Your task to perform on an android device: change notification settings in the gmail app Image 0: 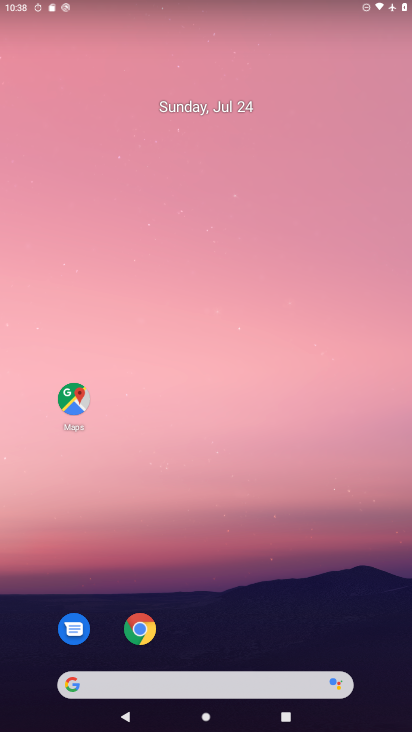
Step 0: drag from (192, 522) to (192, 44)
Your task to perform on an android device: change notification settings in the gmail app Image 1: 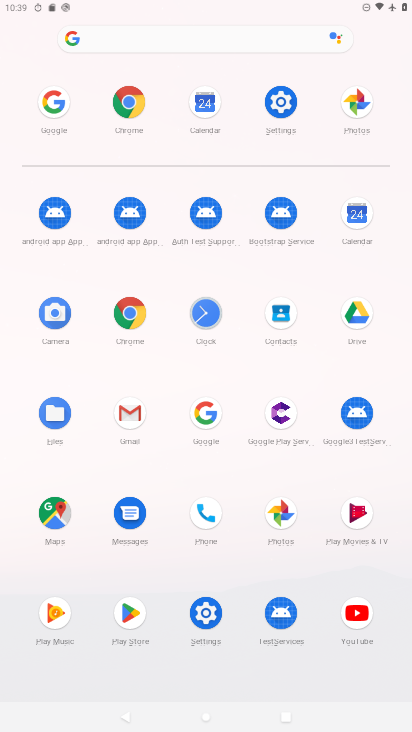
Step 1: click (129, 436)
Your task to perform on an android device: change notification settings in the gmail app Image 2: 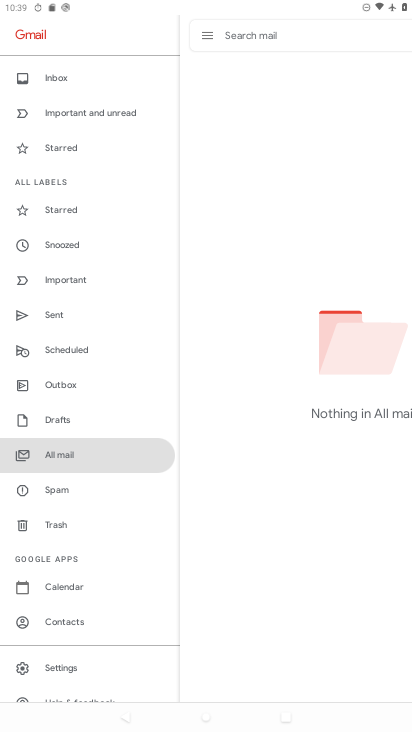
Step 2: click (63, 669)
Your task to perform on an android device: change notification settings in the gmail app Image 3: 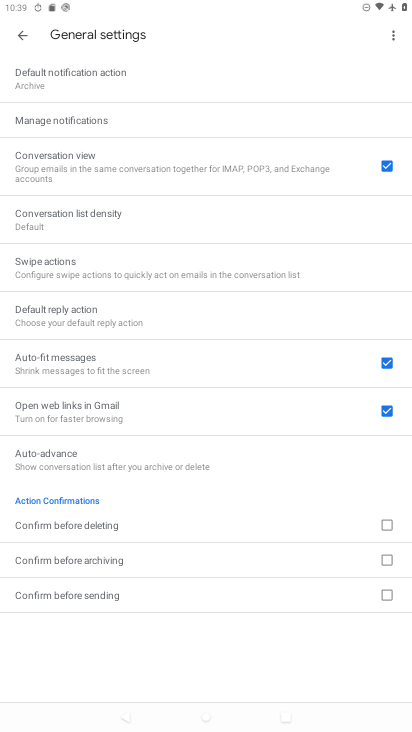
Step 3: click (87, 111)
Your task to perform on an android device: change notification settings in the gmail app Image 4: 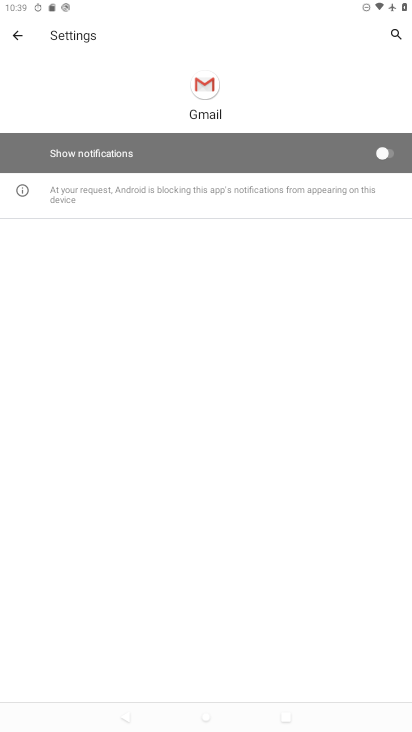
Step 4: click (384, 153)
Your task to perform on an android device: change notification settings in the gmail app Image 5: 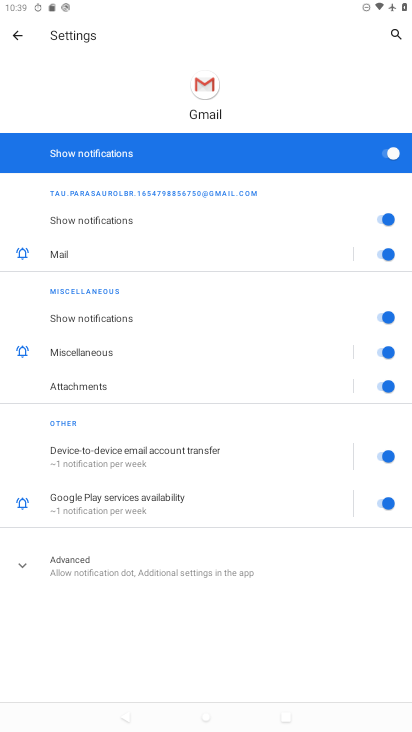
Step 5: task complete